Your task to perform on an android device: delete a single message in the gmail app Image 0: 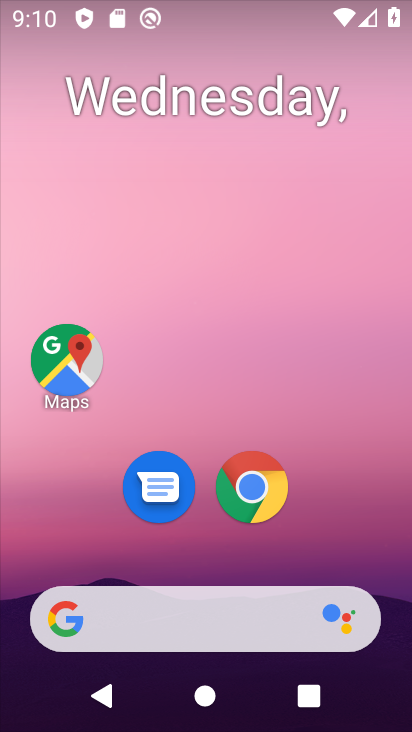
Step 0: drag from (268, 617) to (227, 140)
Your task to perform on an android device: delete a single message in the gmail app Image 1: 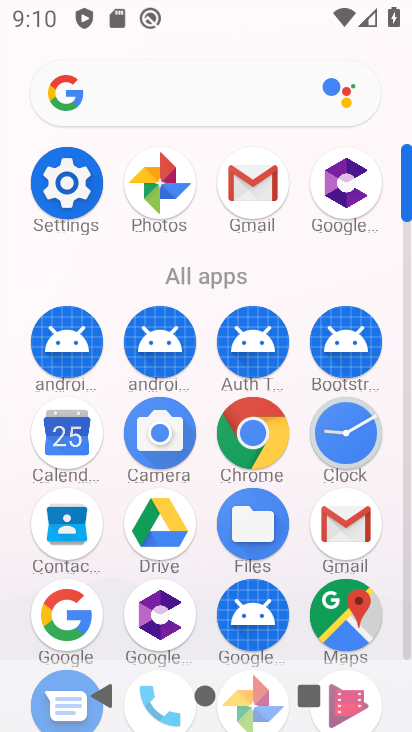
Step 1: click (246, 191)
Your task to perform on an android device: delete a single message in the gmail app Image 2: 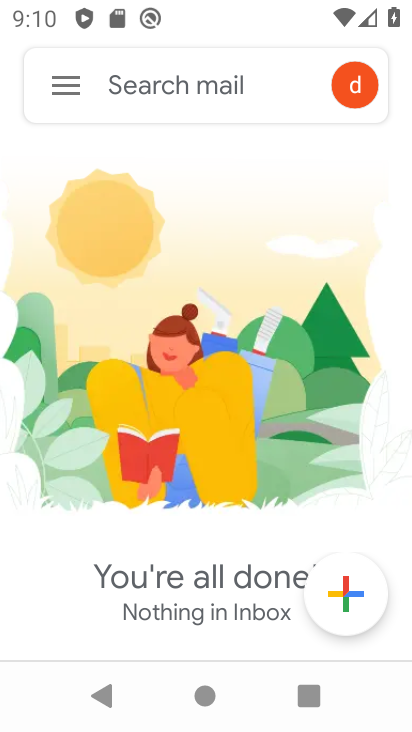
Step 2: task complete